Your task to perform on an android device: manage bookmarks in the chrome app Image 0: 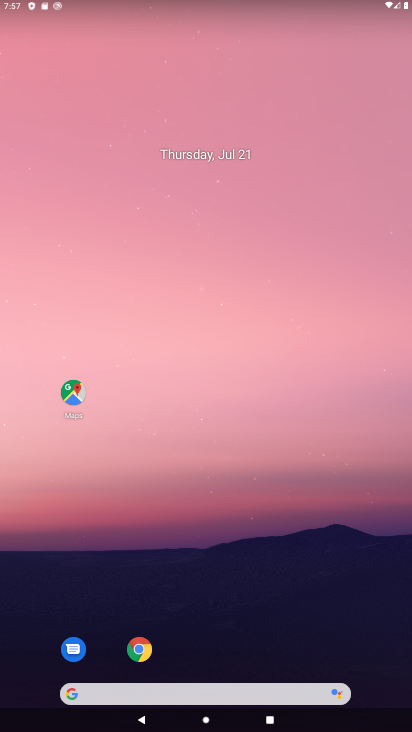
Step 0: click (136, 647)
Your task to perform on an android device: manage bookmarks in the chrome app Image 1: 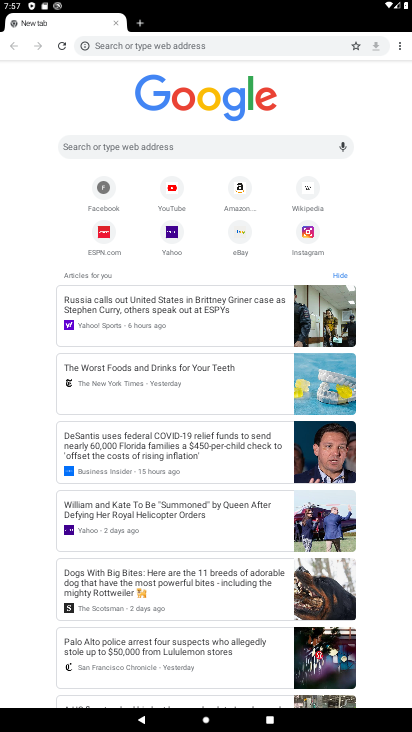
Step 1: click (401, 45)
Your task to perform on an android device: manage bookmarks in the chrome app Image 2: 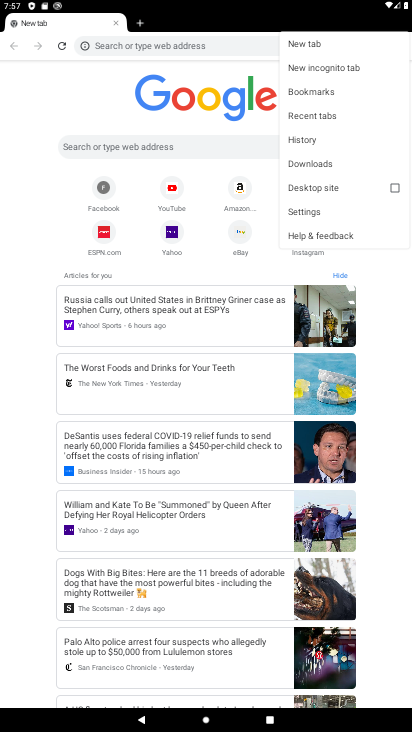
Step 2: click (326, 91)
Your task to perform on an android device: manage bookmarks in the chrome app Image 3: 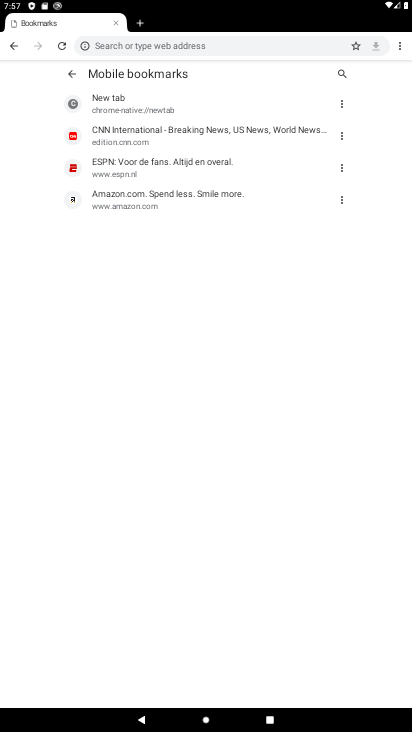
Step 3: click (341, 102)
Your task to perform on an android device: manage bookmarks in the chrome app Image 4: 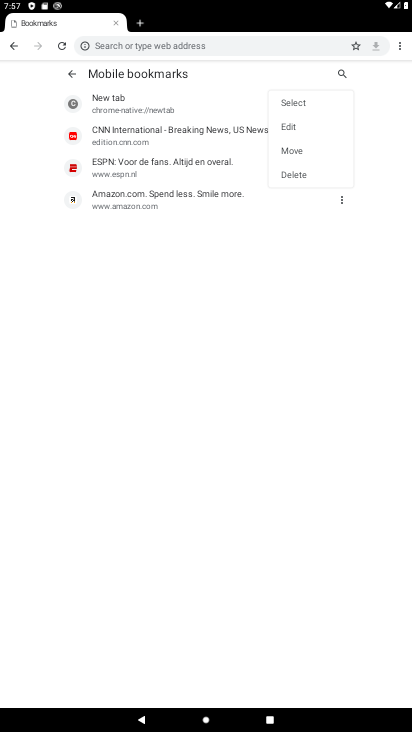
Step 4: click (295, 104)
Your task to perform on an android device: manage bookmarks in the chrome app Image 5: 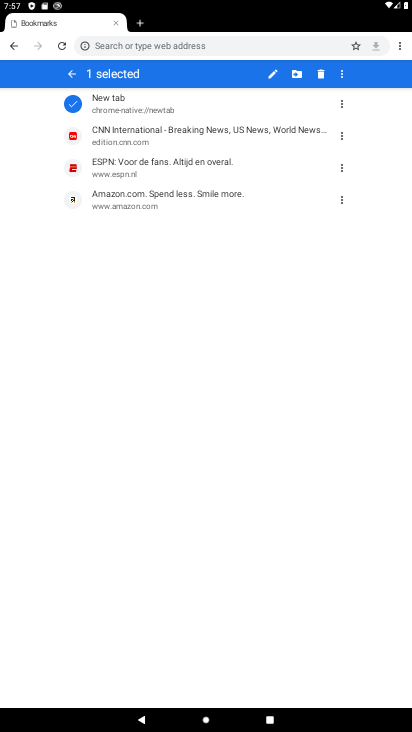
Step 5: click (175, 134)
Your task to perform on an android device: manage bookmarks in the chrome app Image 6: 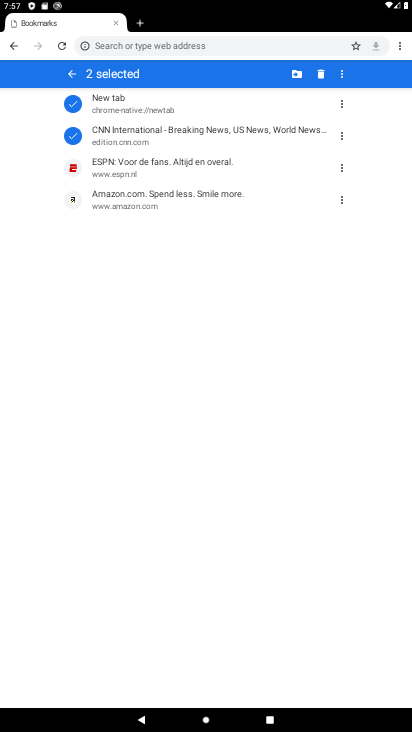
Step 6: click (148, 164)
Your task to perform on an android device: manage bookmarks in the chrome app Image 7: 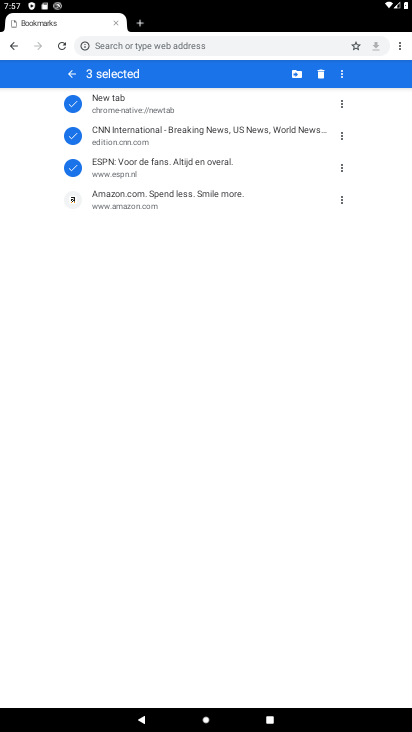
Step 7: click (137, 202)
Your task to perform on an android device: manage bookmarks in the chrome app Image 8: 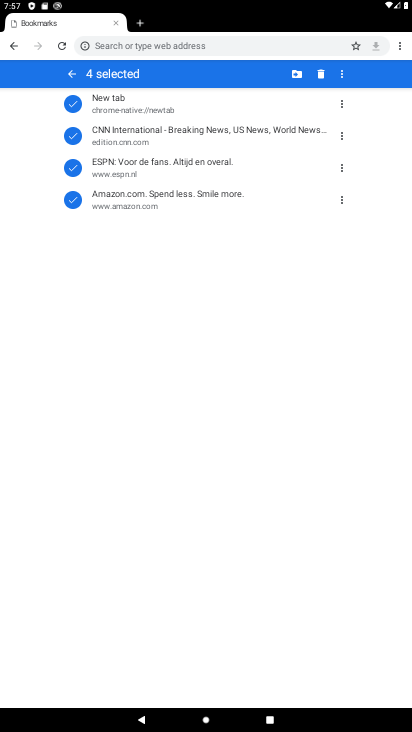
Step 8: click (293, 73)
Your task to perform on an android device: manage bookmarks in the chrome app Image 9: 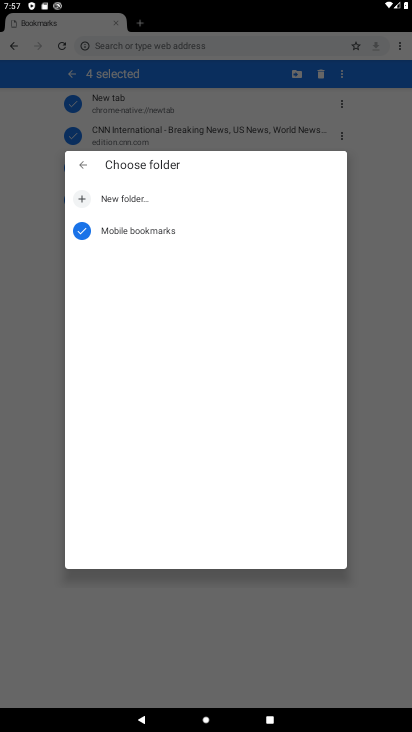
Step 9: click (139, 199)
Your task to perform on an android device: manage bookmarks in the chrome app Image 10: 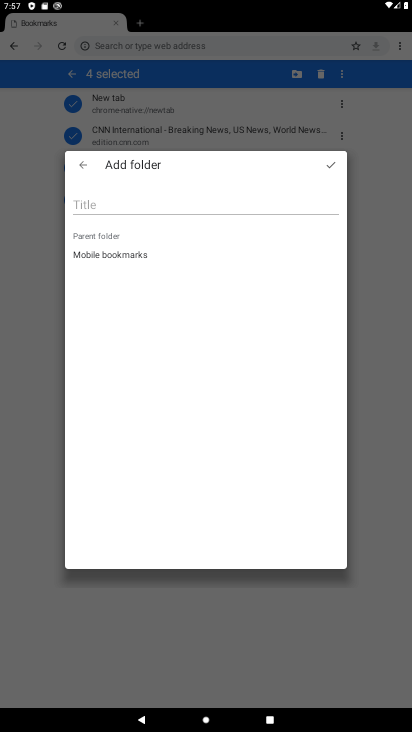
Step 10: click (155, 206)
Your task to perform on an android device: manage bookmarks in the chrome app Image 11: 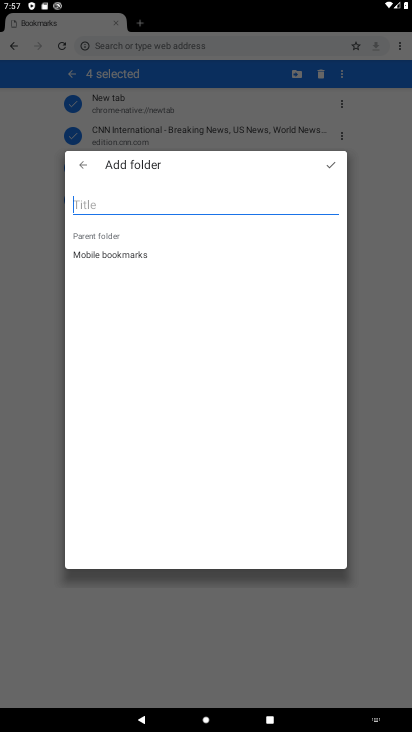
Step 11: type "alfred"
Your task to perform on an android device: manage bookmarks in the chrome app Image 12: 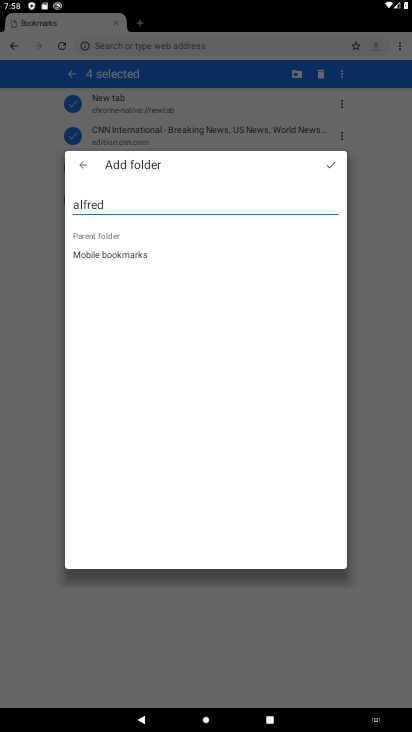
Step 12: click (330, 164)
Your task to perform on an android device: manage bookmarks in the chrome app Image 13: 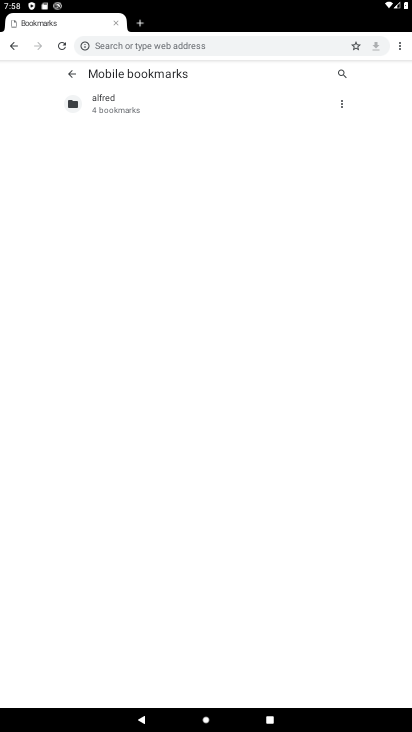
Step 13: task complete